Your task to perform on an android device: set an alarm Image 0: 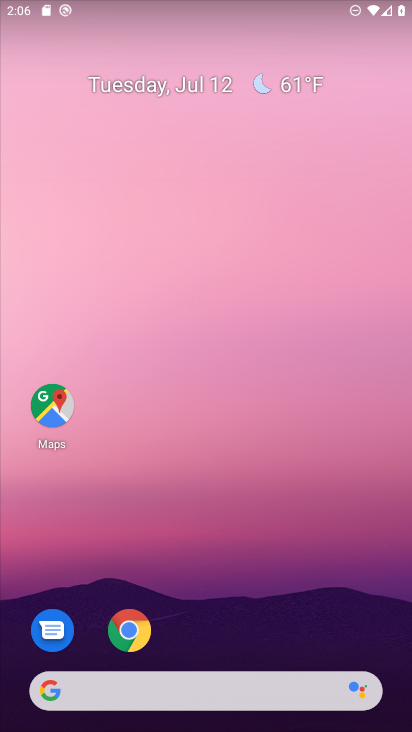
Step 0: drag from (208, 633) to (208, 167)
Your task to perform on an android device: set an alarm Image 1: 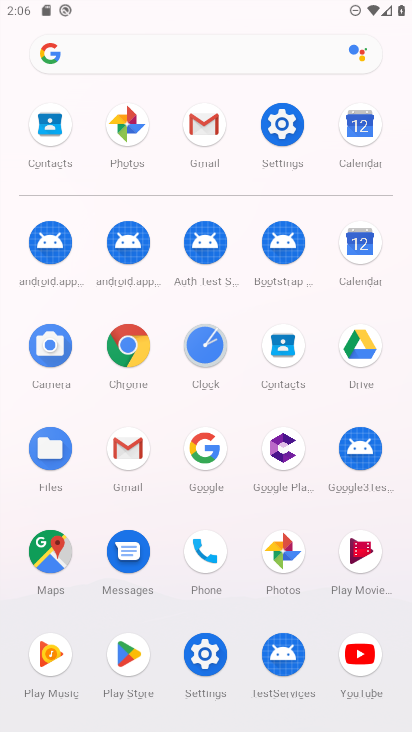
Step 1: click (195, 351)
Your task to perform on an android device: set an alarm Image 2: 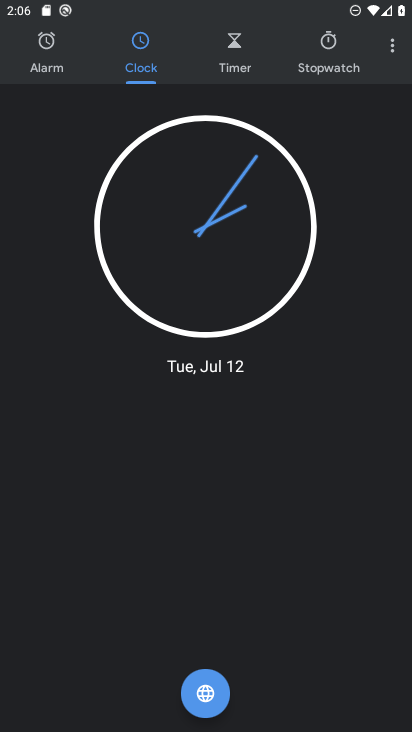
Step 2: click (50, 35)
Your task to perform on an android device: set an alarm Image 3: 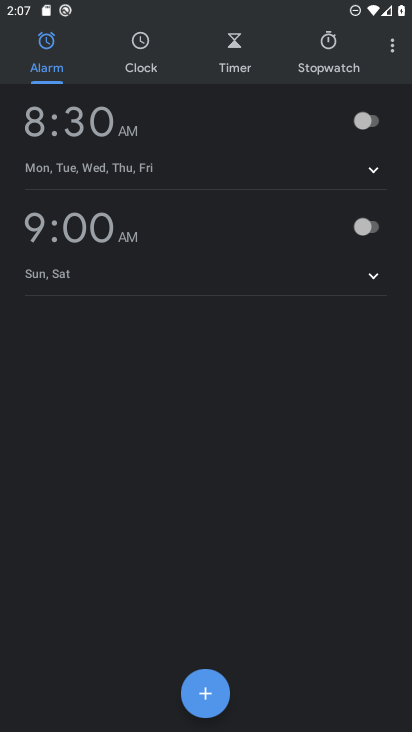
Step 3: click (374, 115)
Your task to perform on an android device: set an alarm Image 4: 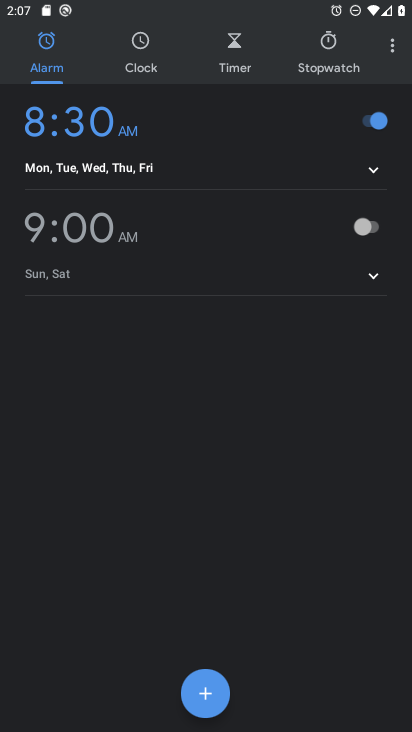
Step 4: task complete